Your task to perform on an android device: Open Google Image 0: 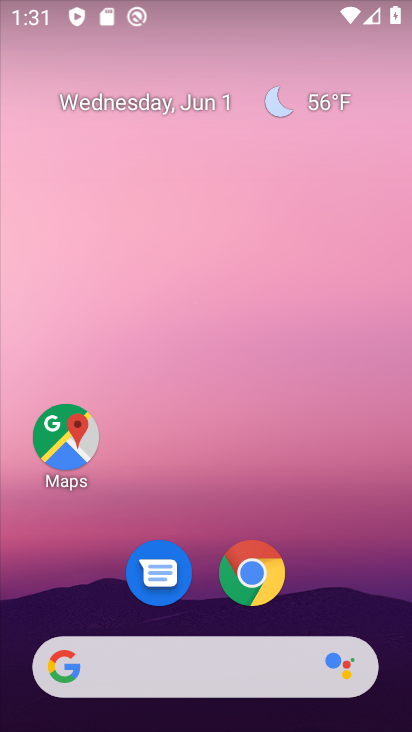
Step 0: drag from (200, 619) to (196, 198)
Your task to perform on an android device: Open Google Image 1: 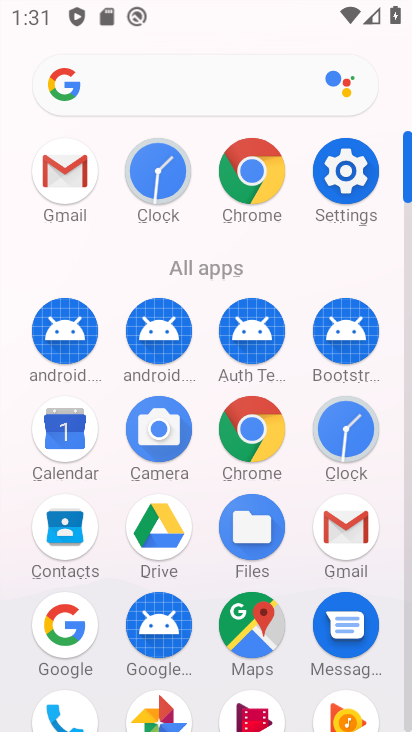
Step 1: click (52, 641)
Your task to perform on an android device: Open Google Image 2: 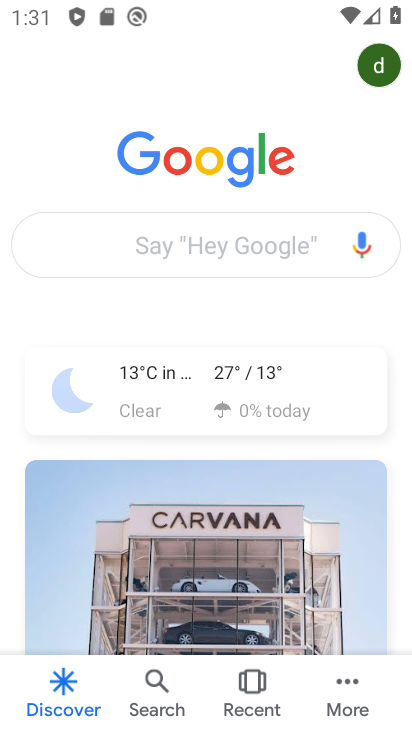
Step 2: click (330, 676)
Your task to perform on an android device: Open Google Image 3: 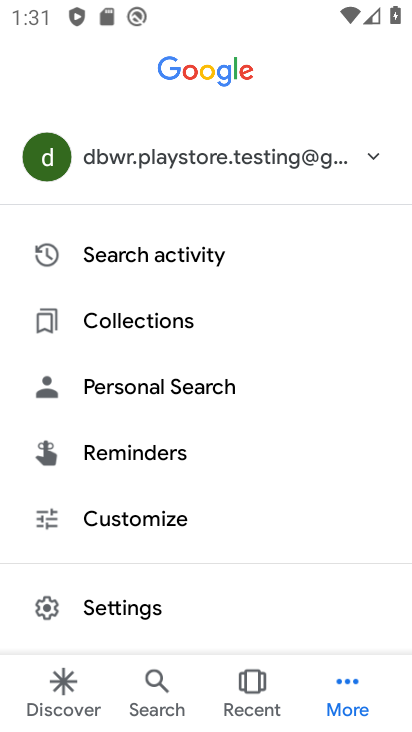
Step 3: click (322, 704)
Your task to perform on an android device: Open Google Image 4: 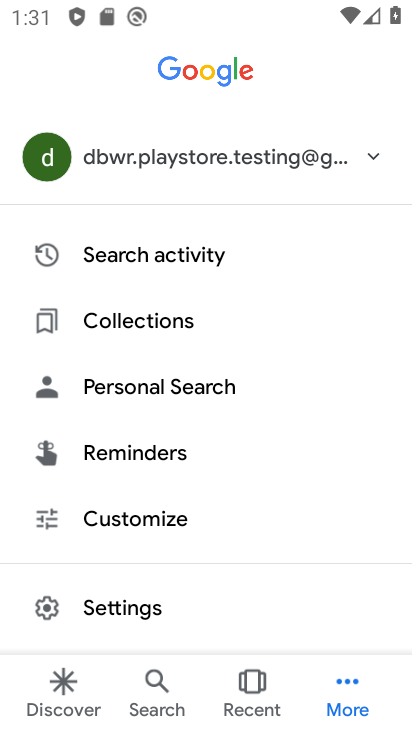
Step 4: click (35, 691)
Your task to perform on an android device: Open Google Image 5: 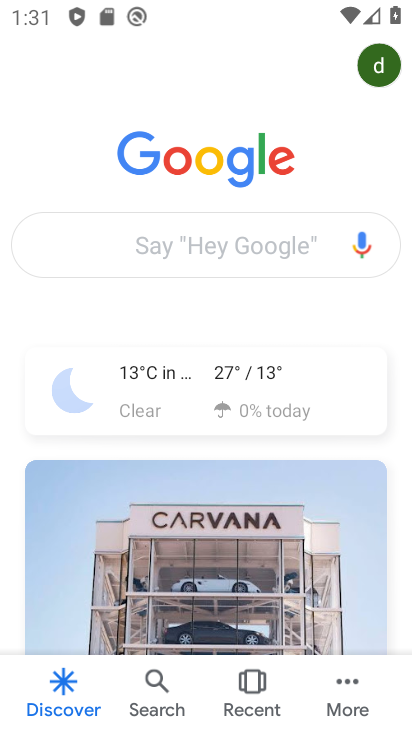
Step 5: task complete